Your task to perform on an android device: Go to ESPN.com Image 0: 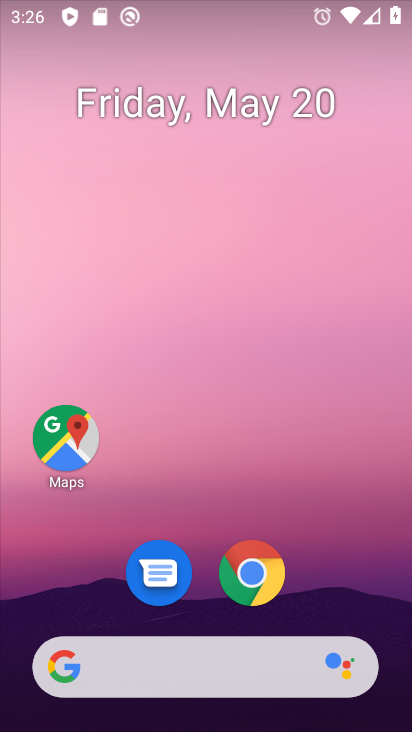
Step 0: click (251, 579)
Your task to perform on an android device: Go to ESPN.com Image 1: 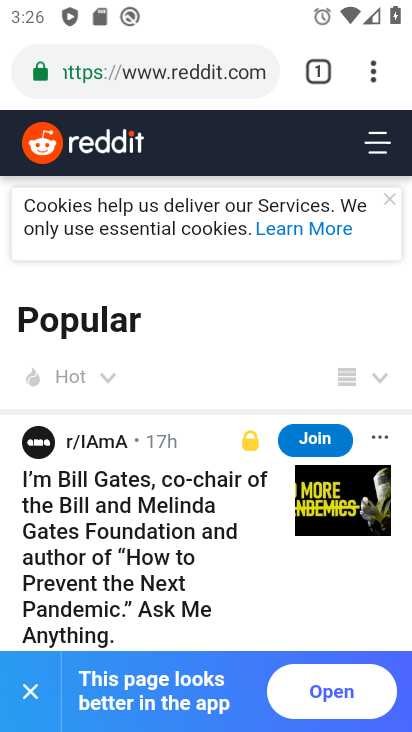
Step 1: click (323, 79)
Your task to perform on an android device: Go to ESPN.com Image 2: 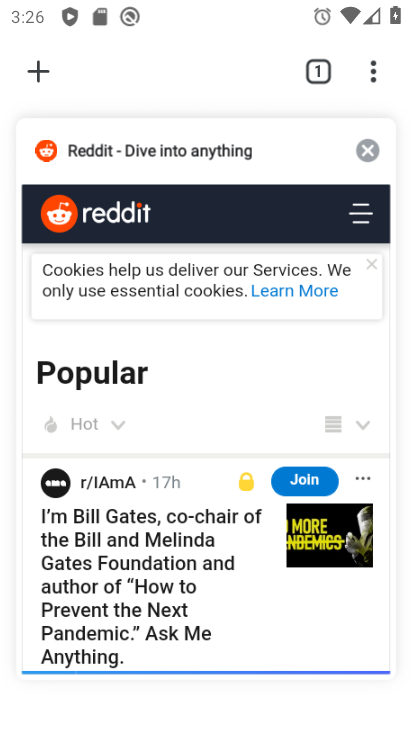
Step 2: click (34, 64)
Your task to perform on an android device: Go to ESPN.com Image 3: 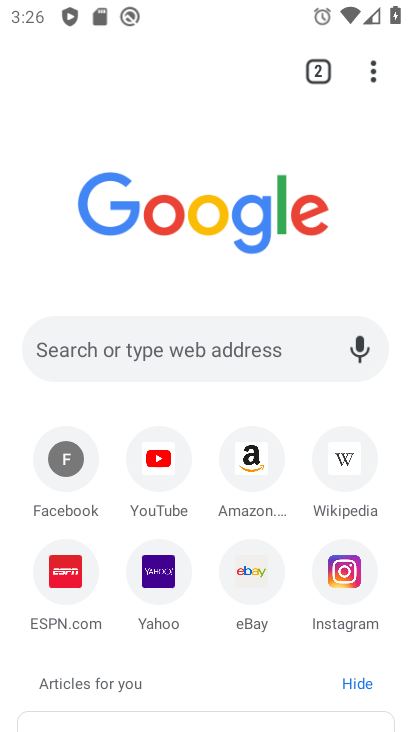
Step 3: click (63, 556)
Your task to perform on an android device: Go to ESPN.com Image 4: 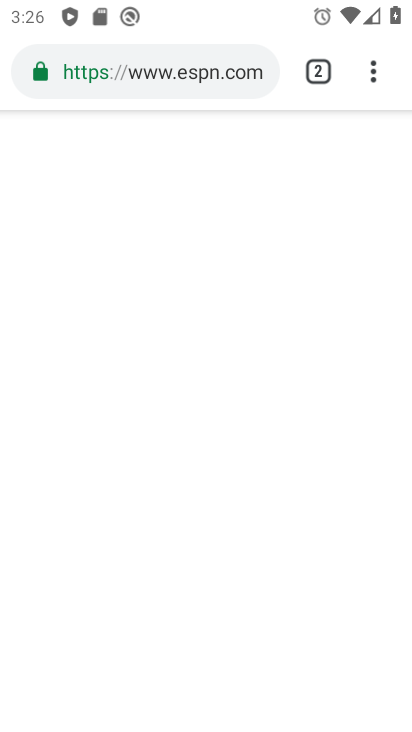
Step 4: task complete